Your task to perform on an android device: Show me the alarms in the clock app Image 0: 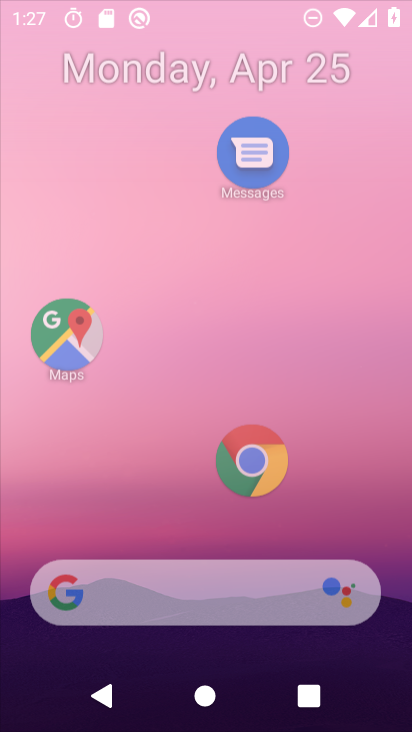
Step 0: click (354, 7)
Your task to perform on an android device: Show me the alarms in the clock app Image 1: 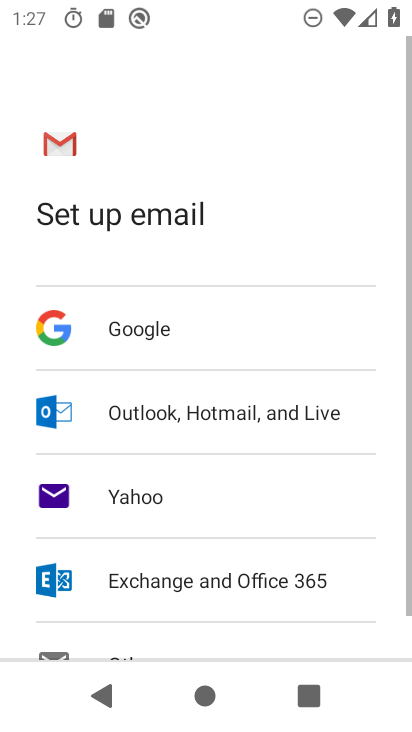
Step 1: press home button
Your task to perform on an android device: Show me the alarms in the clock app Image 2: 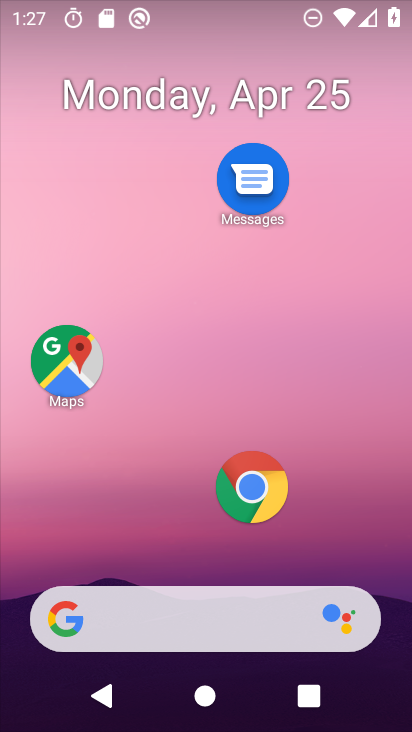
Step 2: drag from (276, 380) to (257, 0)
Your task to perform on an android device: Show me the alarms in the clock app Image 3: 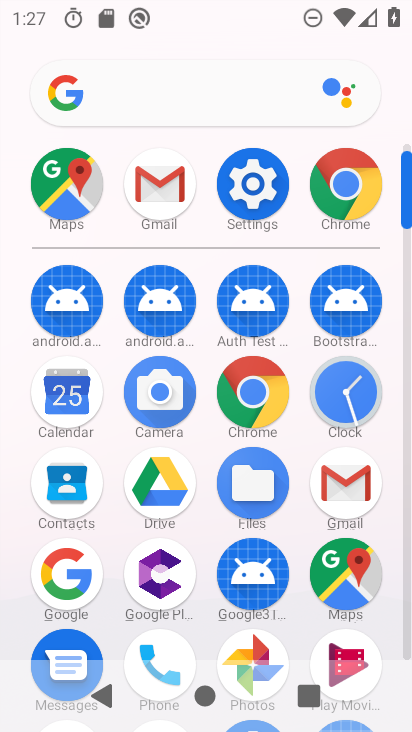
Step 3: click (271, 179)
Your task to perform on an android device: Show me the alarms in the clock app Image 4: 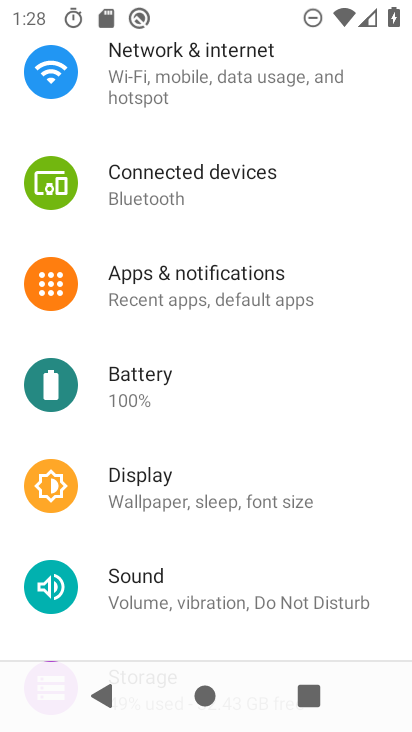
Step 4: press home button
Your task to perform on an android device: Show me the alarms in the clock app Image 5: 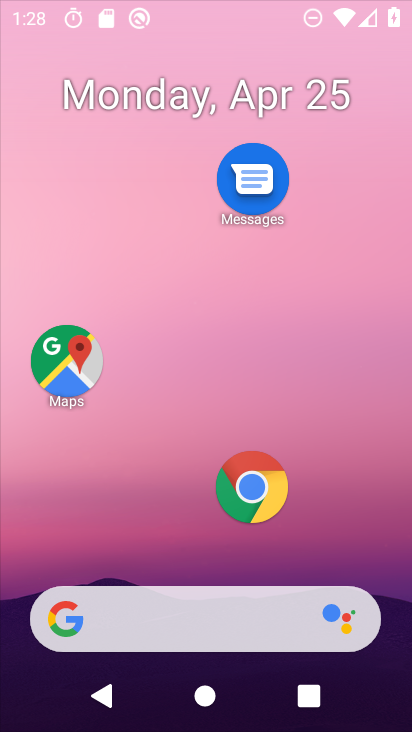
Step 5: drag from (236, 507) to (278, 1)
Your task to perform on an android device: Show me the alarms in the clock app Image 6: 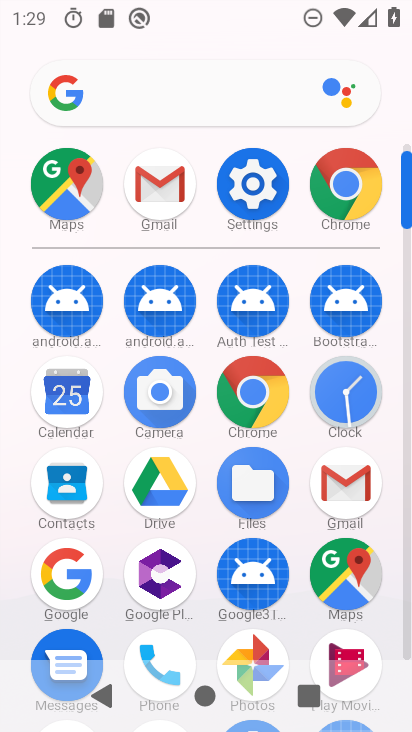
Step 6: click (358, 386)
Your task to perform on an android device: Show me the alarms in the clock app Image 7: 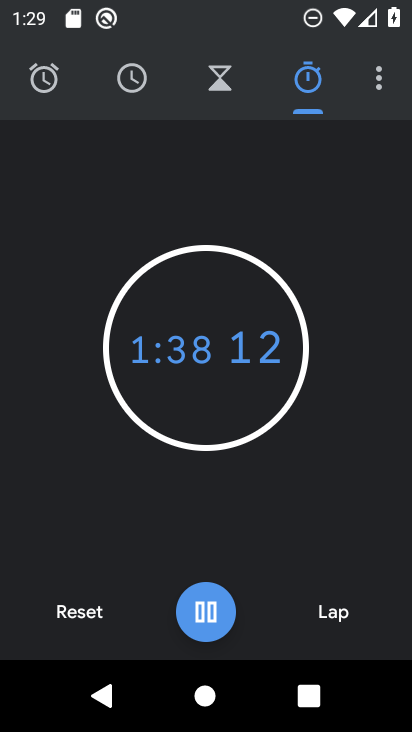
Step 7: click (33, 77)
Your task to perform on an android device: Show me the alarms in the clock app Image 8: 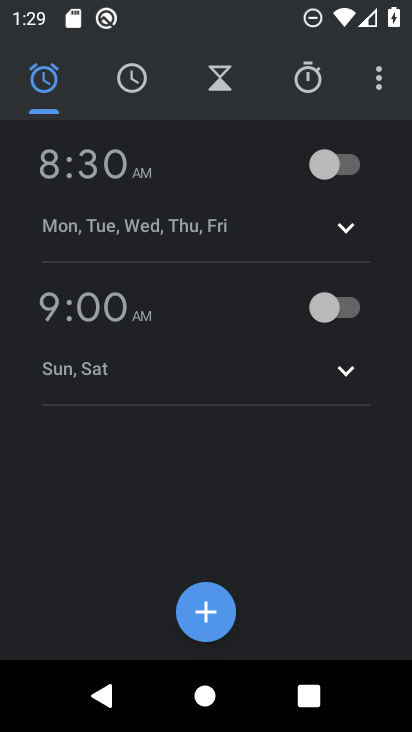
Step 8: task complete